Your task to perform on an android device: change text size in settings app Image 0: 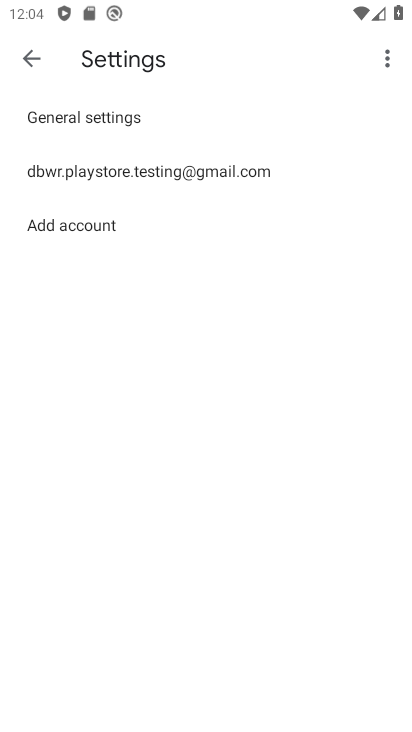
Step 0: press home button
Your task to perform on an android device: change text size in settings app Image 1: 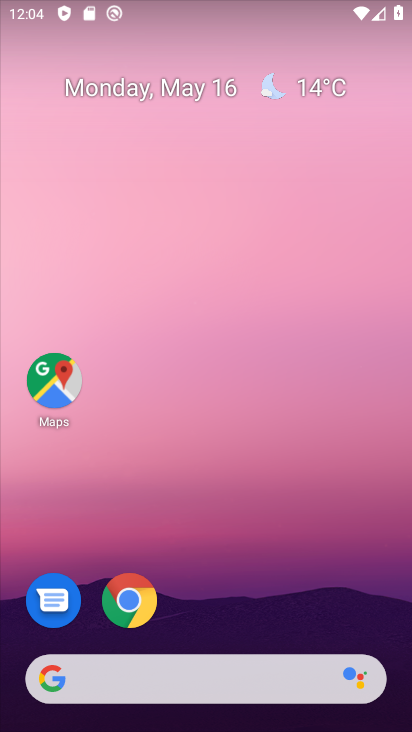
Step 1: drag from (216, 629) to (226, 65)
Your task to perform on an android device: change text size in settings app Image 2: 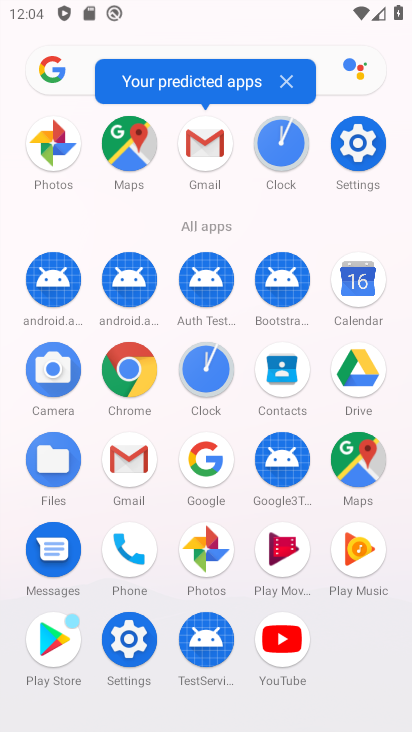
Step 2: click (356, 134)
Your task to perform on an android device: change text size in settings app Image 3: 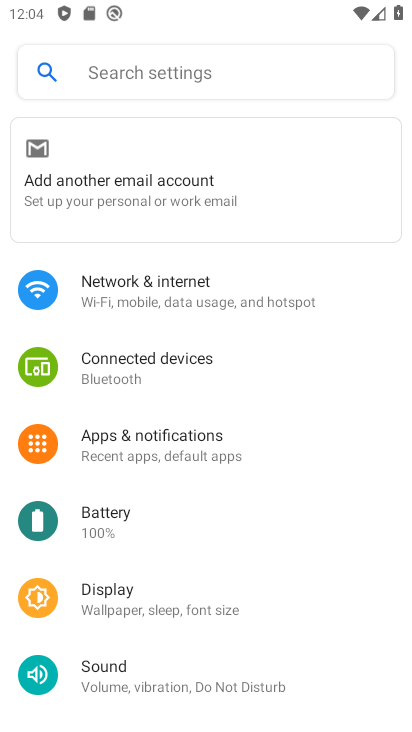
Step 3: click (135, 589)
Your task to perform on an android device: change text size in settings app Image 4: 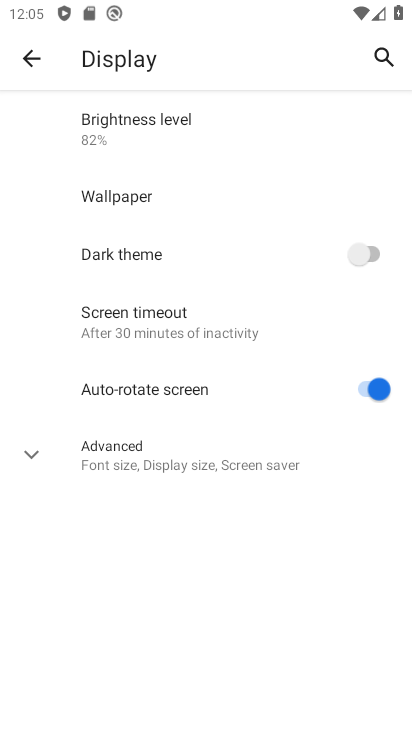
Step 4: click (37, 452)
Your task to perform on an android device: change text size in settings app Image 5: 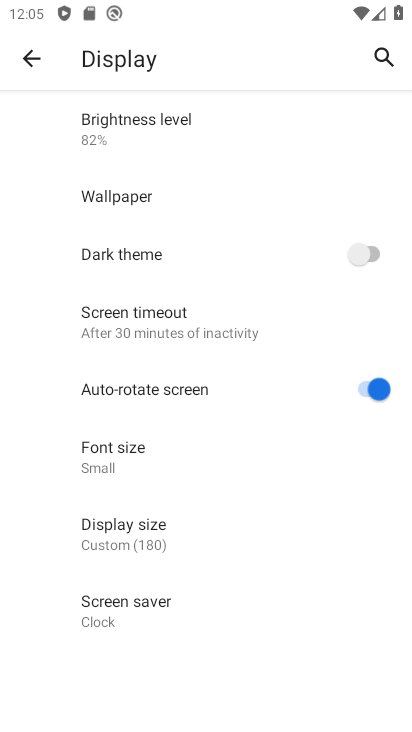
Step 5: click (147, 461)
Your task to perform on an android device: change text size in settings app Image 6: 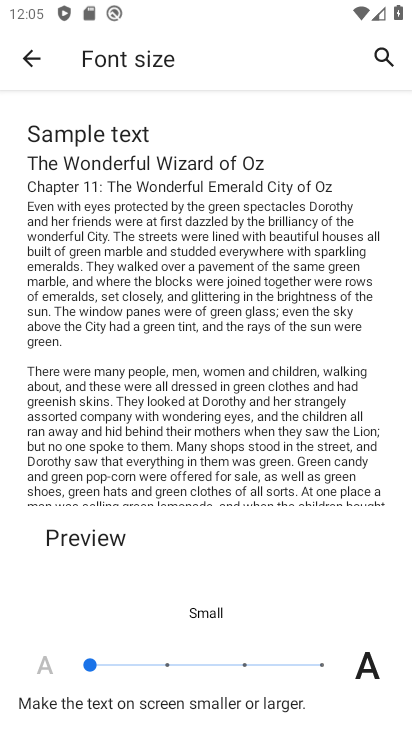
Step 6: click (168, 661)
Your task to perform on an android device: change text size in settings app Image 7: 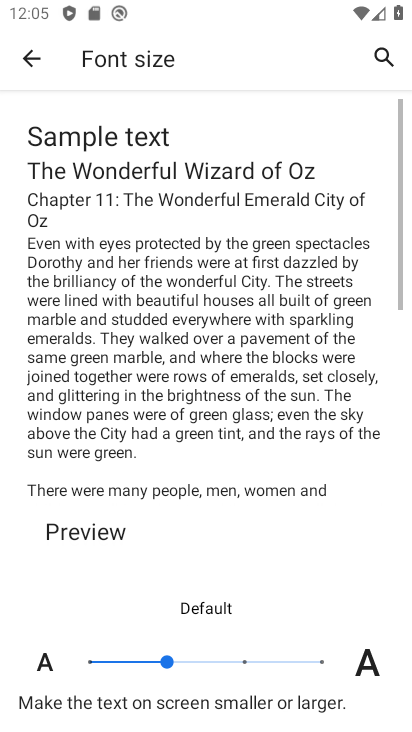
Step 7: task complete